Your task to perform on an android device: Open privacy settings Image 0: 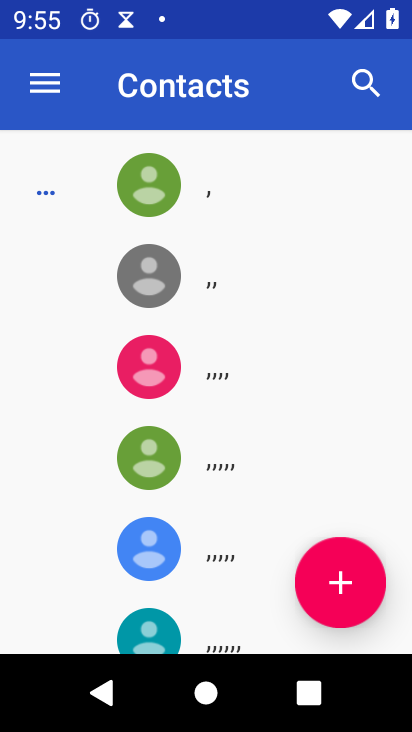
Step 0: press home button
Your task to perform on an android device: Open privacy settings Image 1: 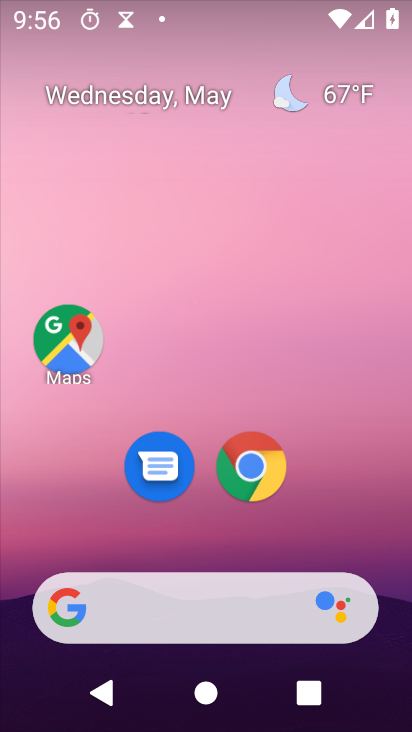
Step 1: drag from (155, 549) to (137, 50)
Your task to perform on an android device: Open privacy settings Image 2: 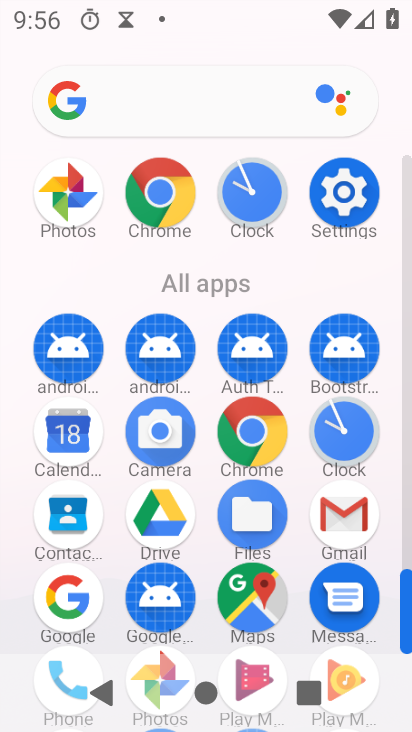
Step 2: click (349, 203)
Your task to perform on an android device: Open privacy settings Image 3: 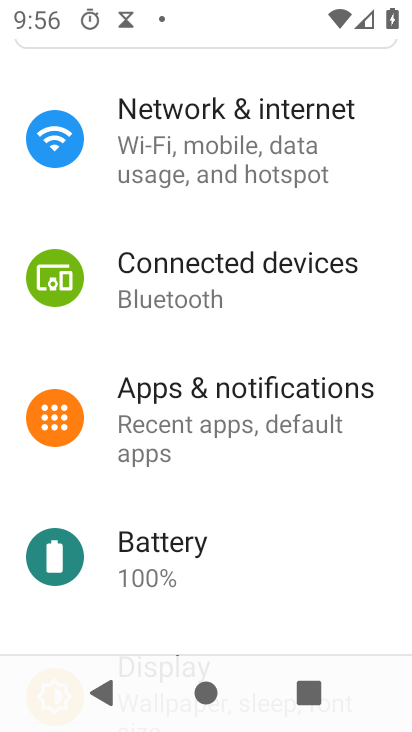
Step 3: drag from (238, 502) to (215, 125)
Your task to perform on an android device: Open privacy settings Image 4: 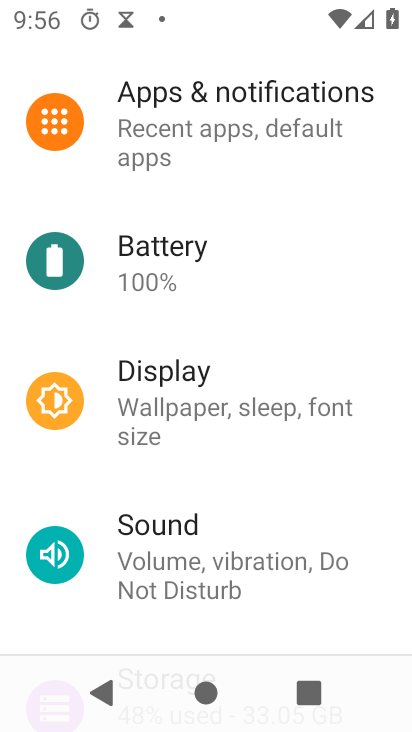
Step 4: drag from (218, 465) to (261, 126)
Your task to perform on an android device: Open privacy settings Image 5: 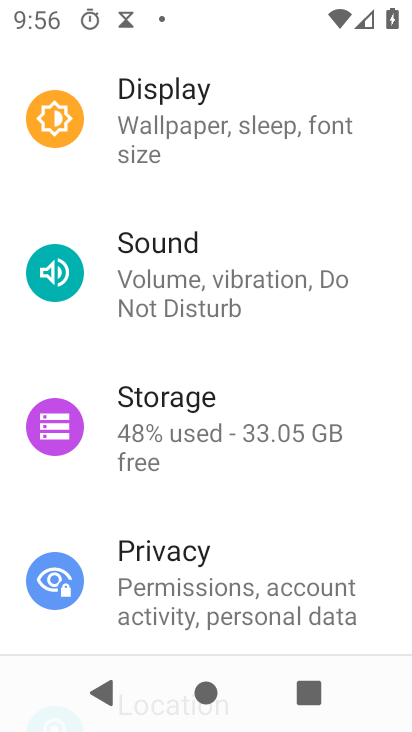
Step 5: drag from (222, 467) to (220, 50)
Your task to perform on an android device: Open privacy settings Image 6: 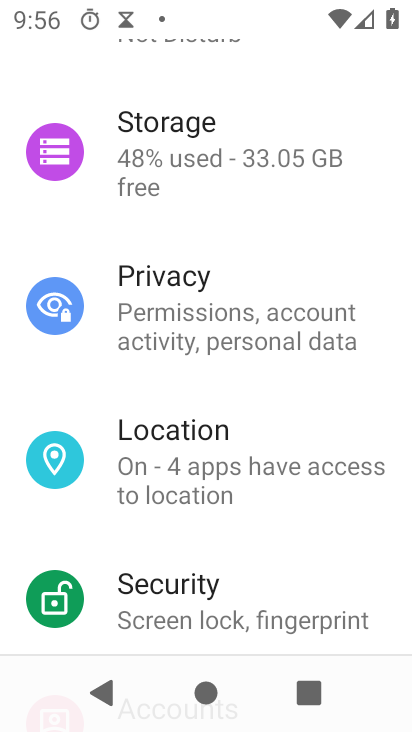
Step 6: click (158, 334)
Your task to perform on an android device: Open privacy settings Image 7: 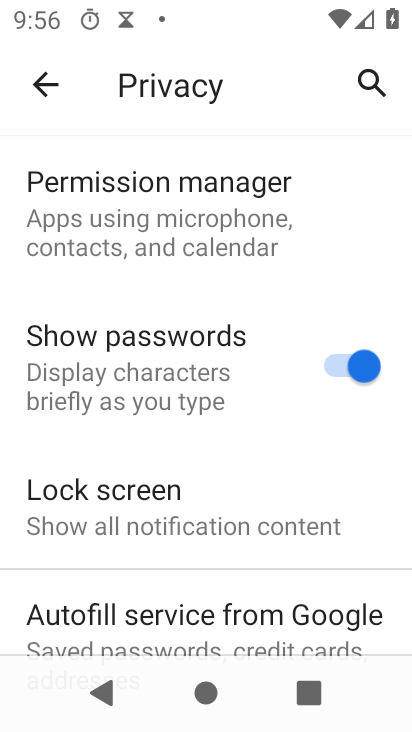
Step 7: task complete